Your task to perform on an android device: turn off notifications in google photos Image 0: 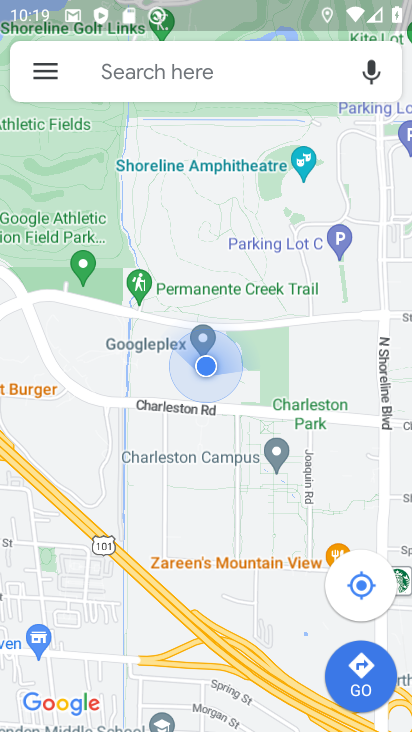
Step 0: press back button
Your task to perform on an android device: turn off notifications in google photos Image 1: 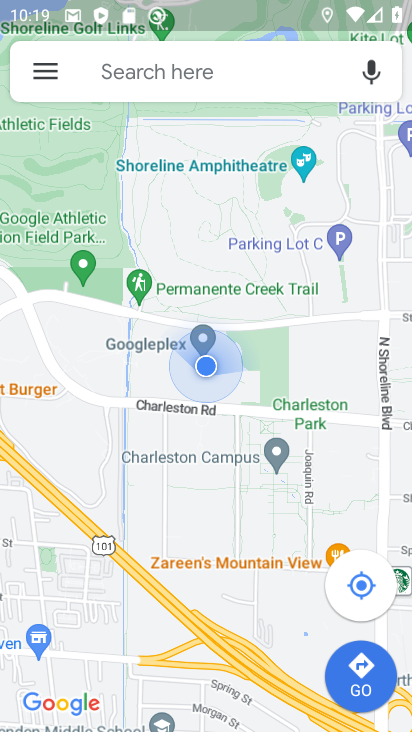
Step 1: press home button
Your task to perform on an android device: turn off notifications in google photos Image 2: 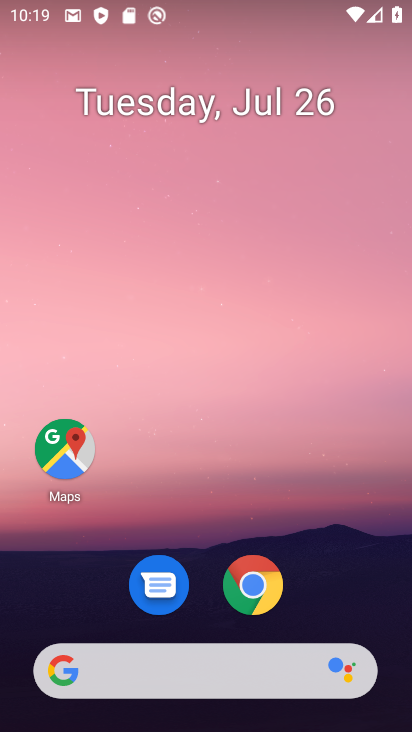
Step 2: drag from (276, 535) to (274, 119)
Your task to perform on an android device: turn off notifications in google photos Image 3: 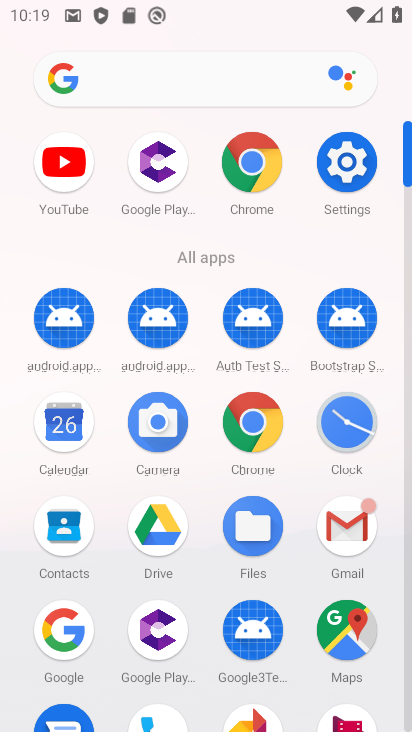
Step 3: drag from (199, 637) to (193, 403)
Your task to perform on an android device: turn off notifications in google photos Image 4: 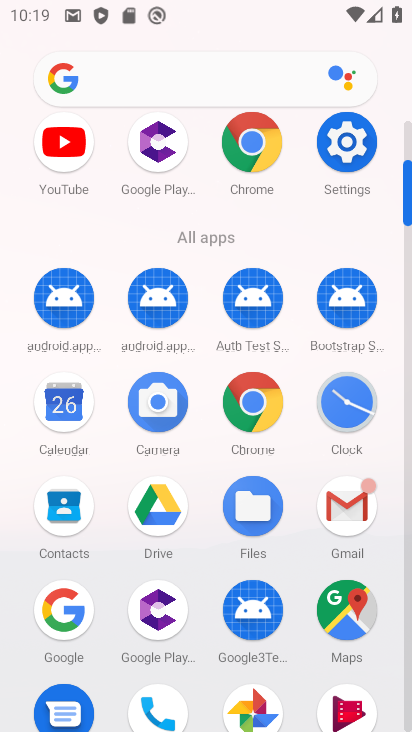
Step 4: click (251, 683)
Your task to perform on an android device: turn off notifications in google photos Image 5: 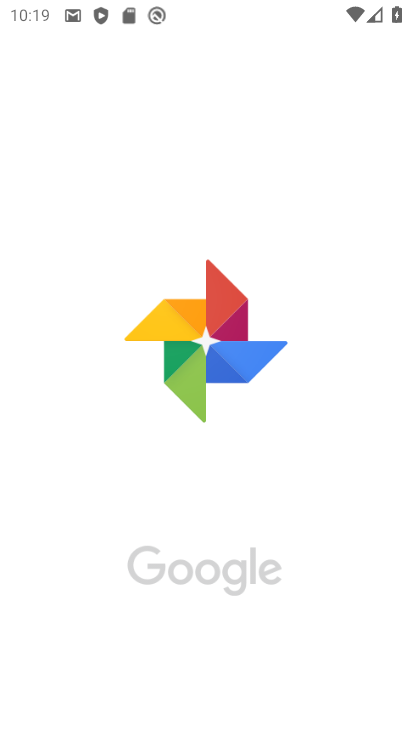
Step 5: click (257, 710)
Your task to perform on an android device: turn off notifications in google photos Image 6: 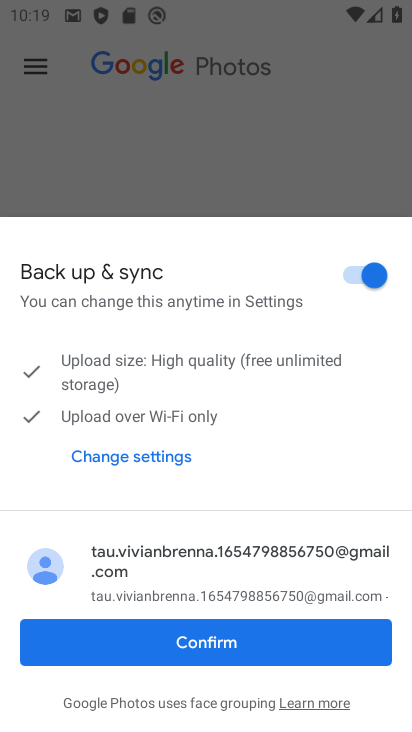
Step 6: click (154, 635)
Your task to perform on an android device: turn off notifications in google photos Image 7: 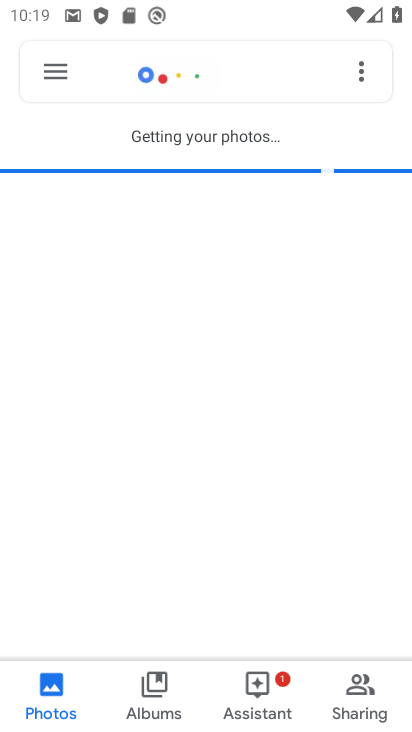
Step 7: click (61, 66)
Your task to perform on an android device: turn off notifications in google photos Image 8: 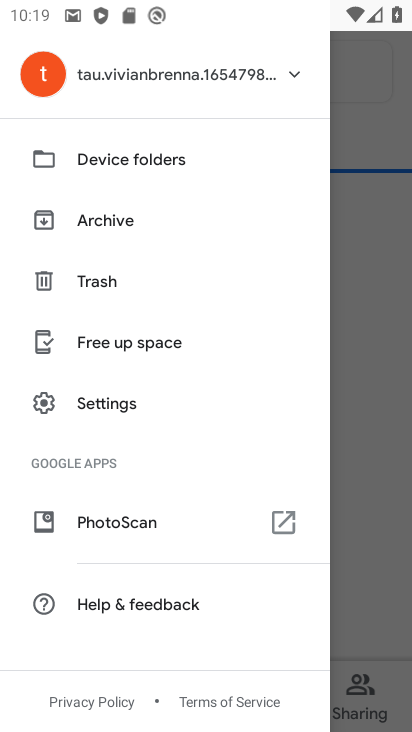
Step 8: click (132, 399)
Your task to perform on an android device: turn off notifications in google photos Image 9: 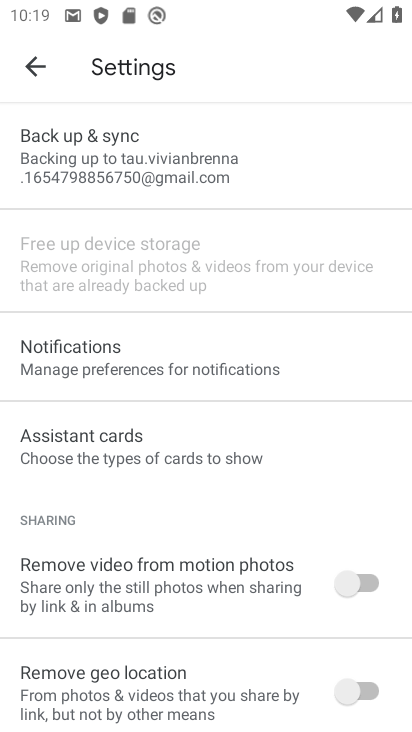
Step 9: click (113, 343)
Your task to perform on an android device: turn off notifications in google photos Image 10: 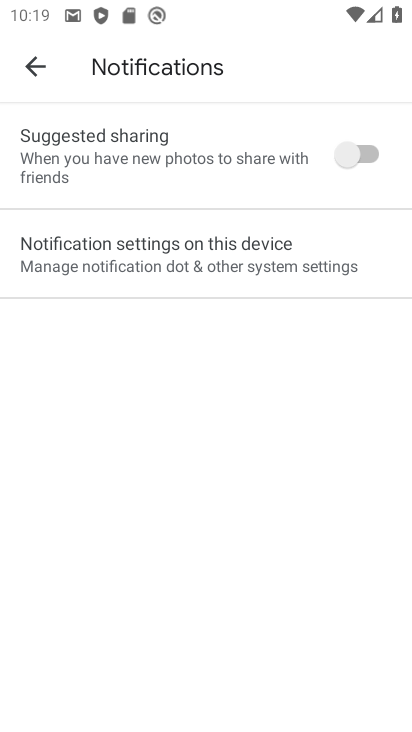
Step 10: click (356, 140)
Your task to perform on an android device: turn off notifications in google photos Image 11: 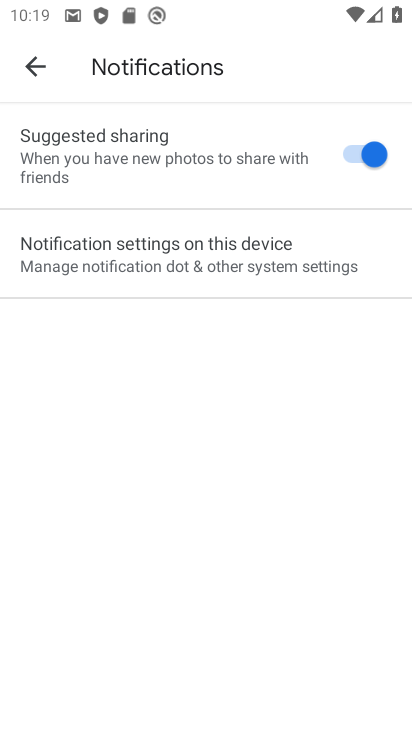
Step 11: click (359, 150)
Your task to perform on an android device: turn off notifications in google photos Image 12: 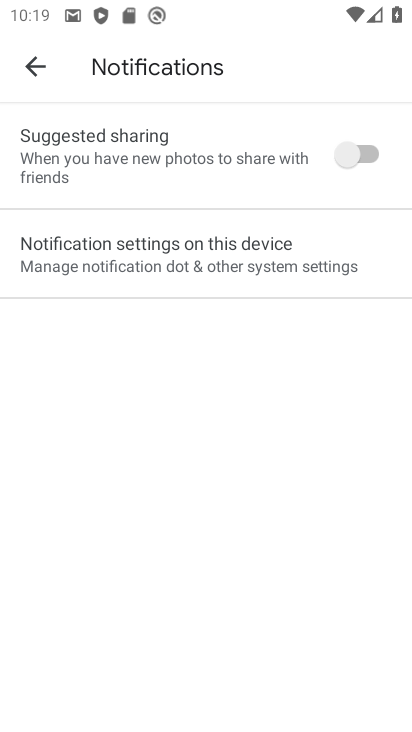
Step 12: click (204, 274)
Your task to perform on an android device: turn off notifications in google photos Image 13: 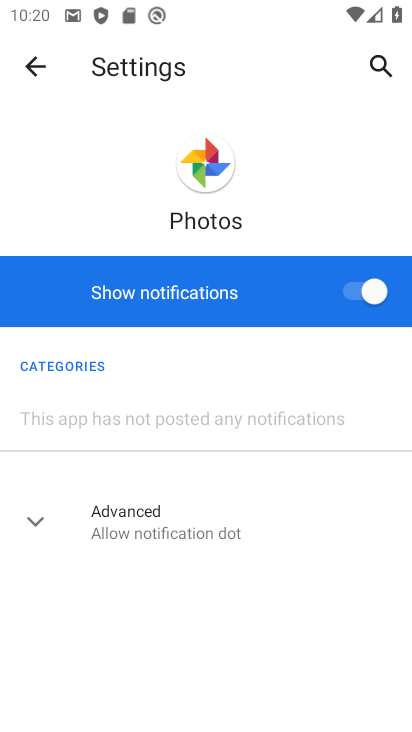
Step 13: click (360, 295)
Your task to perform on an android device: turn off notifications in google photos Image 14: 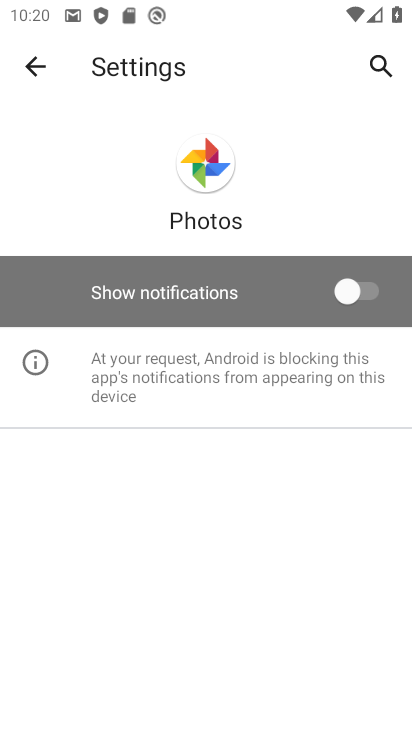
Step 14: task complete